Your task to perform on an android device: Find coffee shops on Maps Image 0: 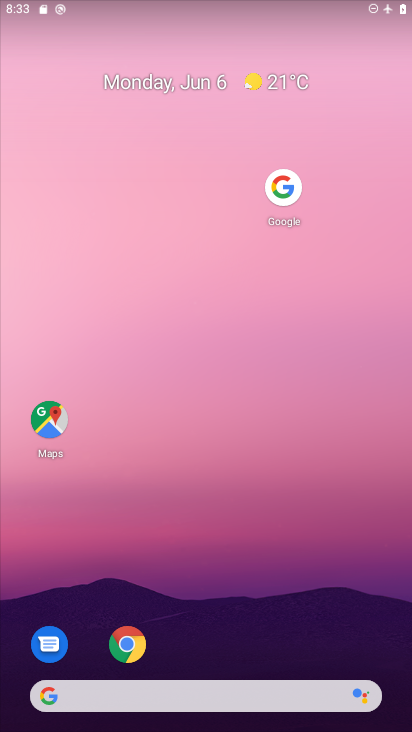
Step 0: click (42, 418)
Your task to perform on an android device: Find coffee shops on Maps Image 1: 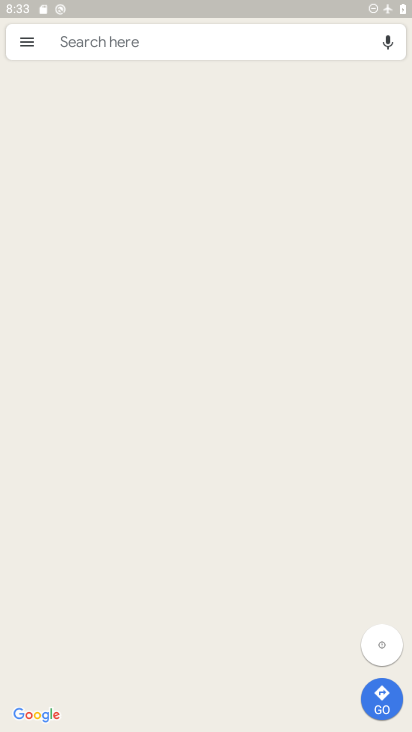
Step 1: click (133, 40)
Your task to perform on an android device: Find coffee shops on Maps Image 2: 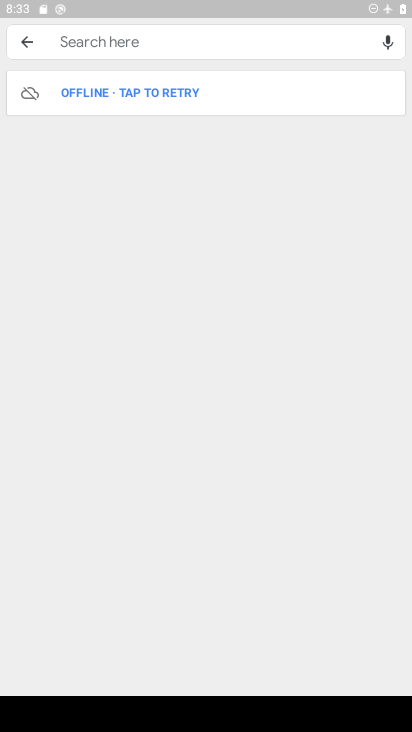
Step 2: click (105, 83)
Your task to perform on an android device: Find coffee shops on Maps Image 3: 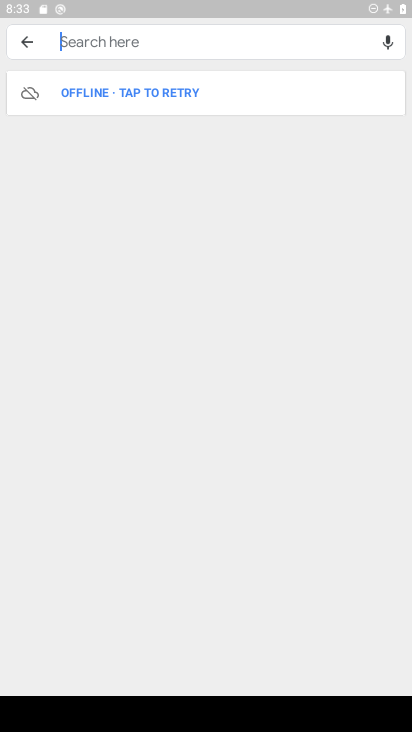
Step 3: task complete